Your task to perform on an android device: turn on showing notifications on the lock screen Image 0: 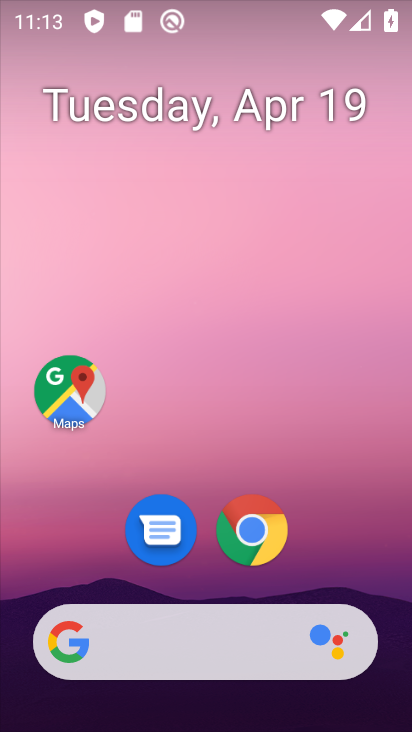
Step 0: drag from (322, 528) to (301, 29)
Your task to perform on an android device: turn on showing notifications on the lock screen Image 1: 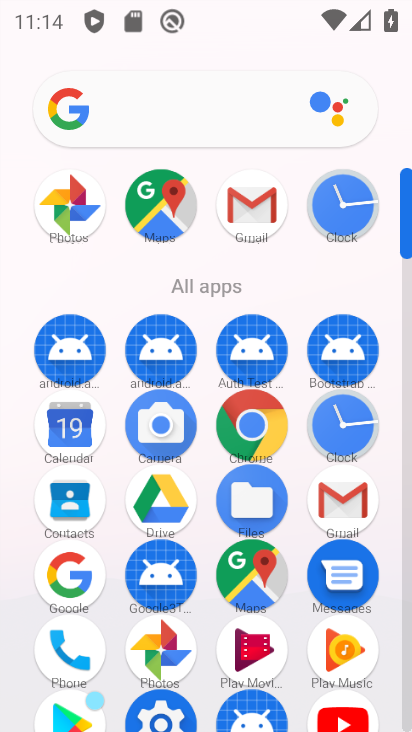
Step 1: drag from (203, 605) to (225, 209)
Your task to perform on an android device: turn on showing notifications on the lock screen Image 2: 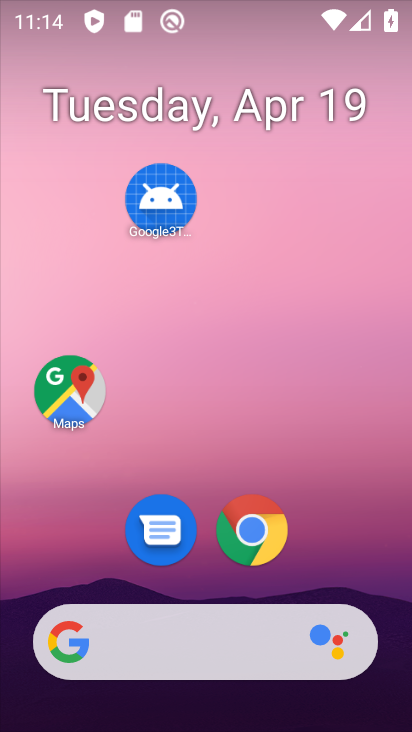
Step 2: drag from (346, 535) to (327, 223)
Your task to perform on an android device: turn on showing notifications on the lock screen Image 3: 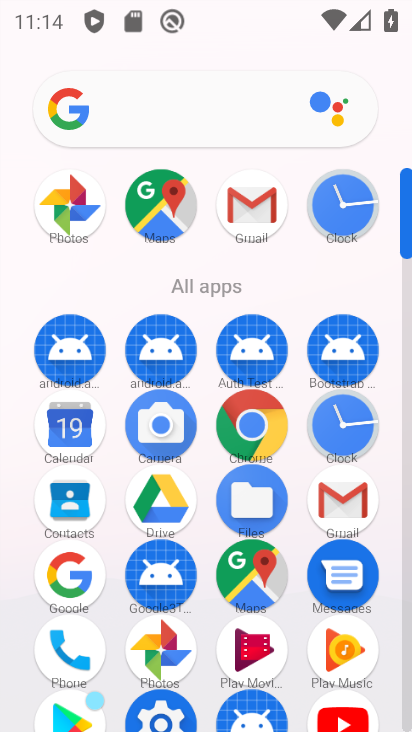
Step 3: drag from (299, 490) to (306, 158)
Your task to perform on an android device: turn on showing notifications on the lock screen Image 4: 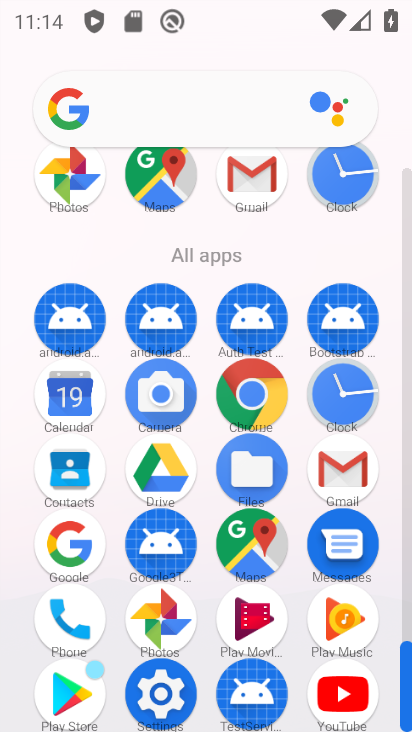
Step 4: click (155, 689)
Your task to perform on an android device: turn on showing notifications on the lock screen Image 5: 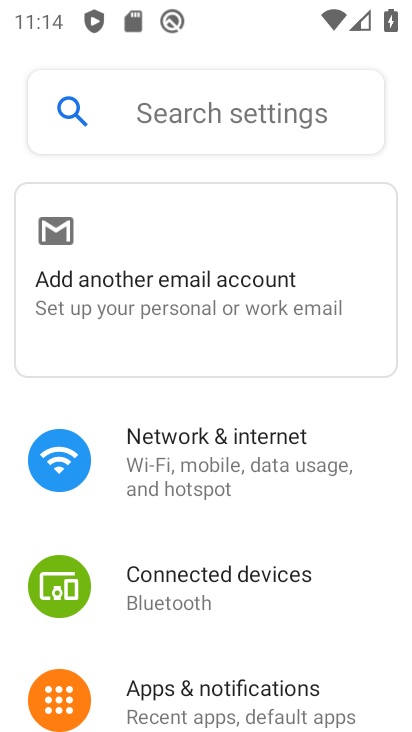
Step 5: drag from (351, 637) to (307, 173)
Your task to perform on an android device: turn on showing notifications on the lock screen Image 6: 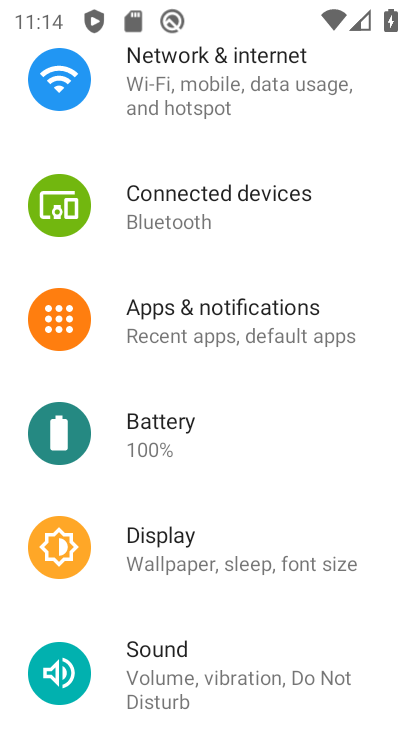
Step 6: click (210, 303)
Your task to perform on an android device: turn on showing notifications on the lock screen Image 7: 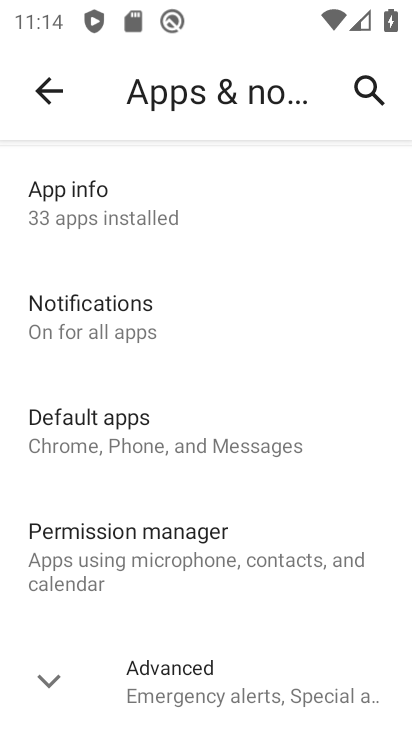
Step 7: click (282, 170)
Your task to perform on an android device: turn on showing notifications on the lock screen Image 8: 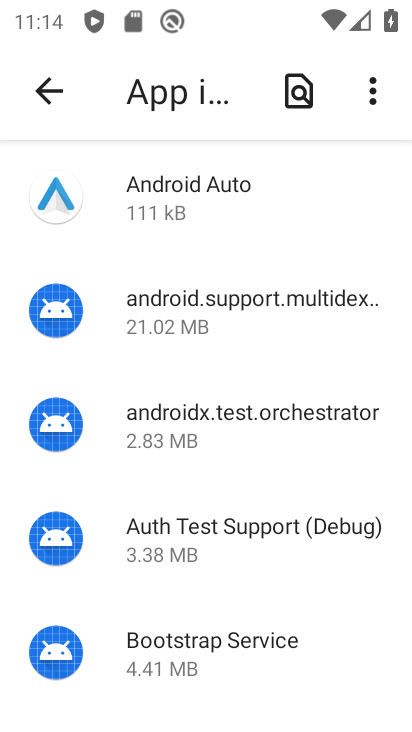
Step 8: drag from (109, 306) to (135, 45)
Your task to perform on an android device: turn on showing notifications on the lock screen Image 9: 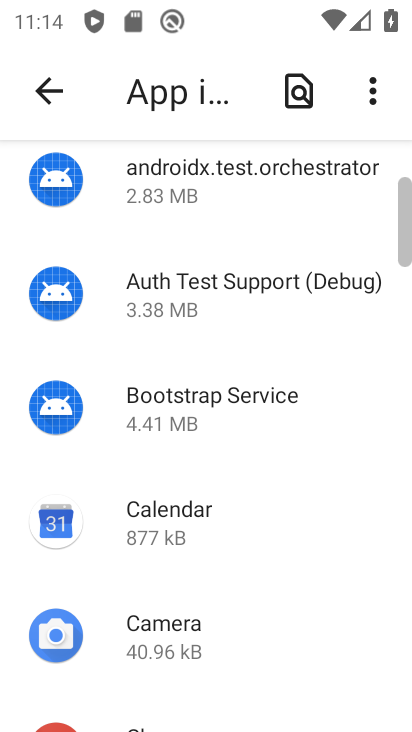
Step 9: click (40, 96)
Your task to perform on an android device: turn on showing notifications on the lock screen Image 10: 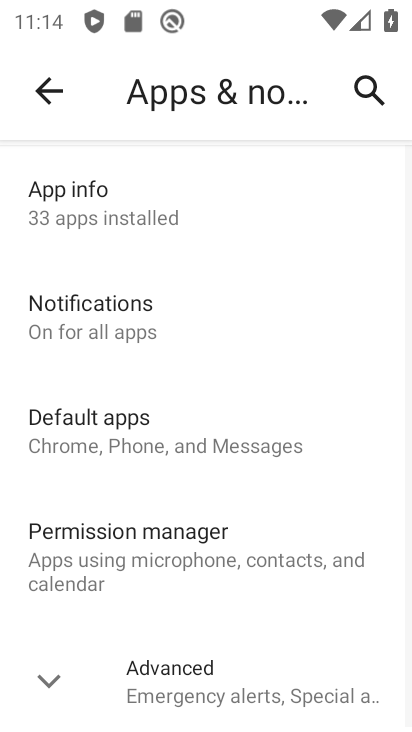
Step 10: click (99, 342)
Your task to perform on an android device: turn on showing notifications on the lock screen Image 11: 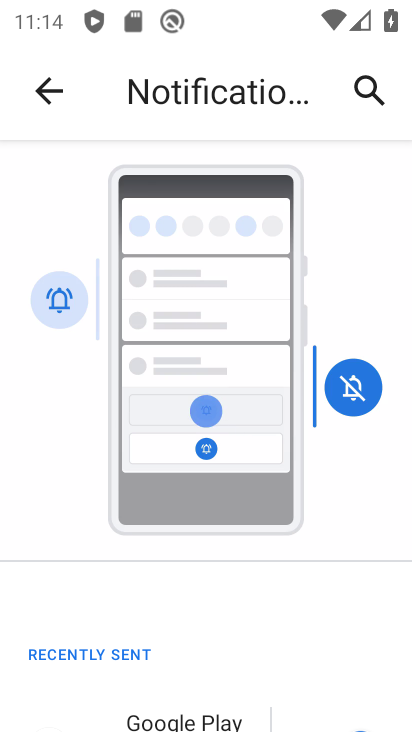
Step 11: drag from (375, 606) to (397, 63)
Your task to perform on an android device: turn on showing notifications on the lock screen Image 12: 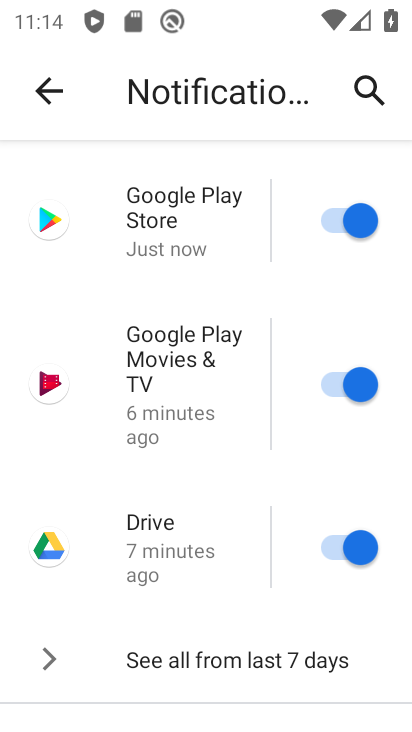
Step 12: drag from (266, 620) to (293, 119)
Your task to perform on an android device: turn on showing notifications on the lock screen Image 13: 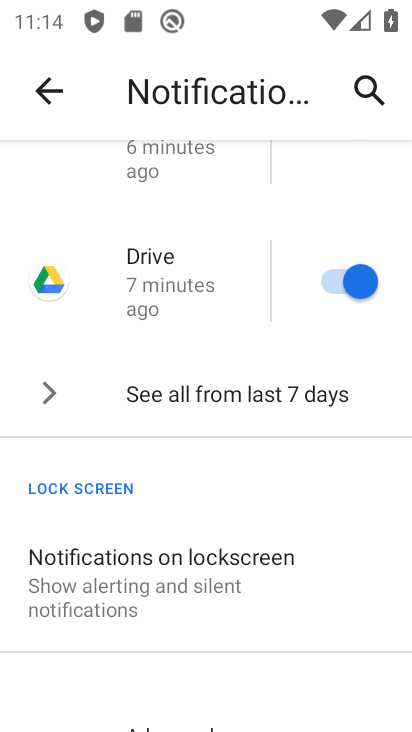
Step 13: drag from (226, 502) to (284, 231)
Your task to perform on an android device: turn on showing notifications on the lock screen Image 14: 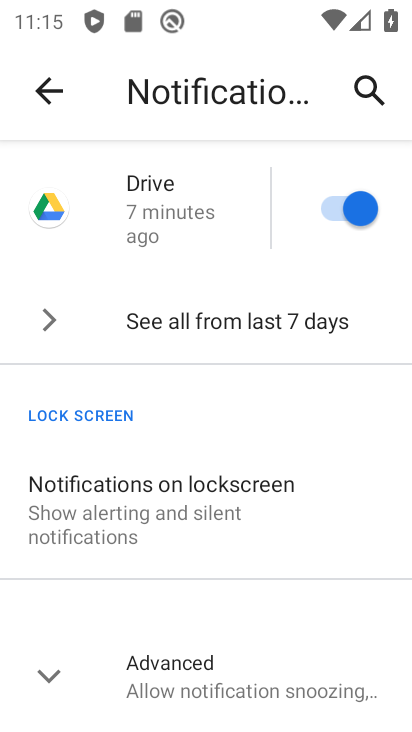
Step 14: click (180, 503)
Your task to perform on an android device: turn on showing notifications on the lock screen Image 15: 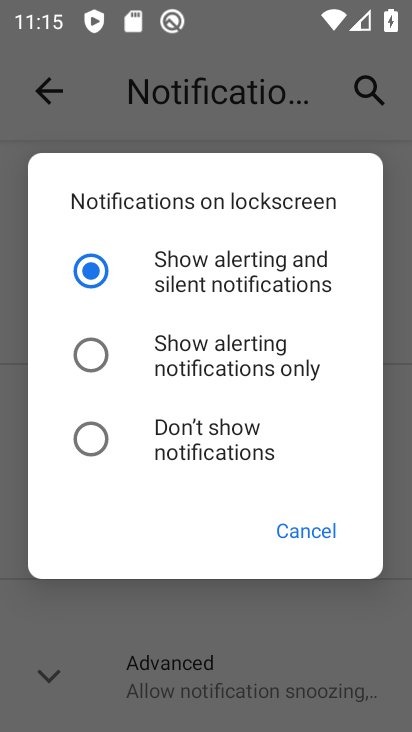
Step 15: click (301, 528)
Your task to perform on an android device: turn on showing notifications on the lock screen Image 16: 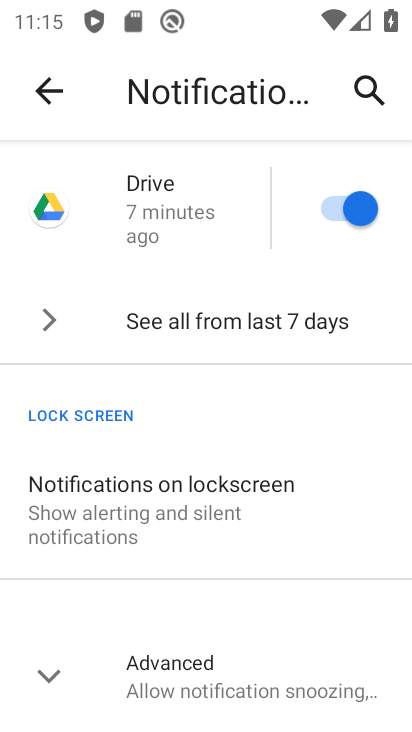
Step 16: task complete